Your task to perform on an android device: set the stopwatch Image 0: 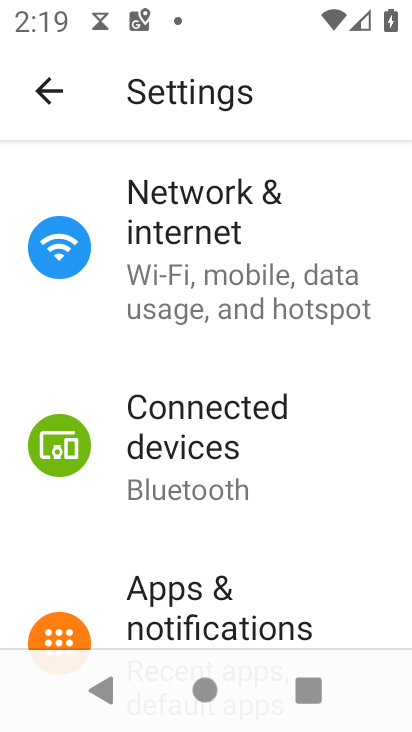
Step 0: press home button
Your task to perform on an android device: set the stopwatch Image 1: 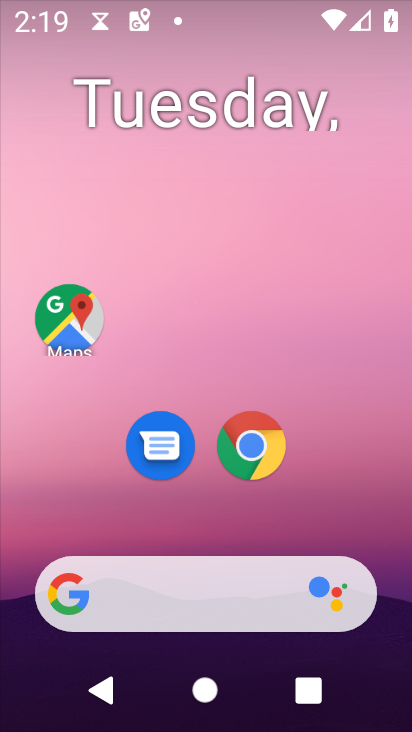
Step 1: drag from (348, 628) to (407, 53)
Your task to perform on an android device: set the stopwatch Image 2: 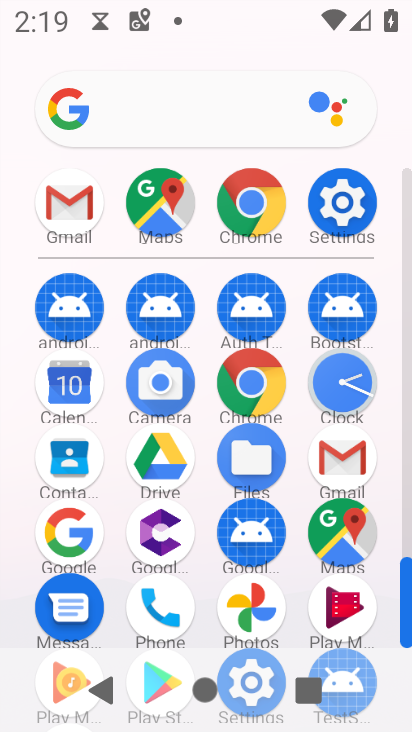
Step 2: click (353, 392)
Your task to perform on an android device: set the stopwatch Image 3: 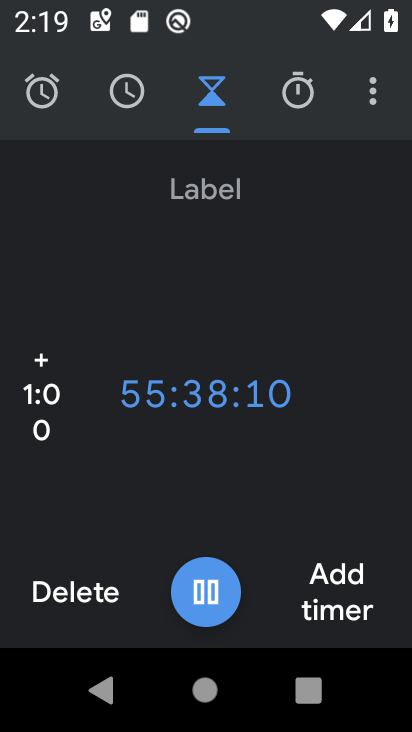
Step 3: click (298, 114)
Your task to perform on an android device: set the stopwatch Image 4: 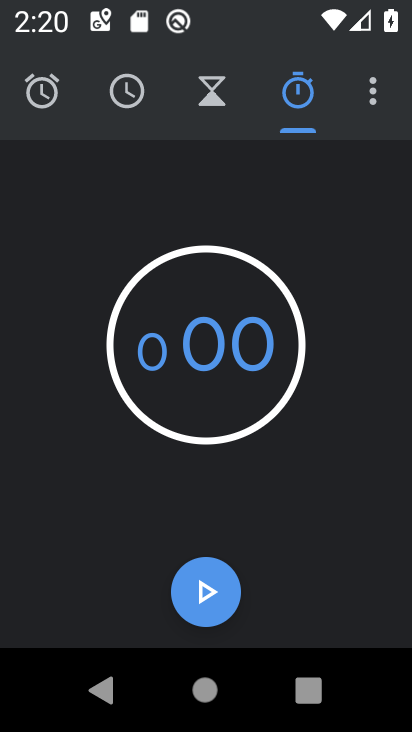
Step 4: click (207, 569)
Your task to perform on an android device: set the stopwatch Image 5: 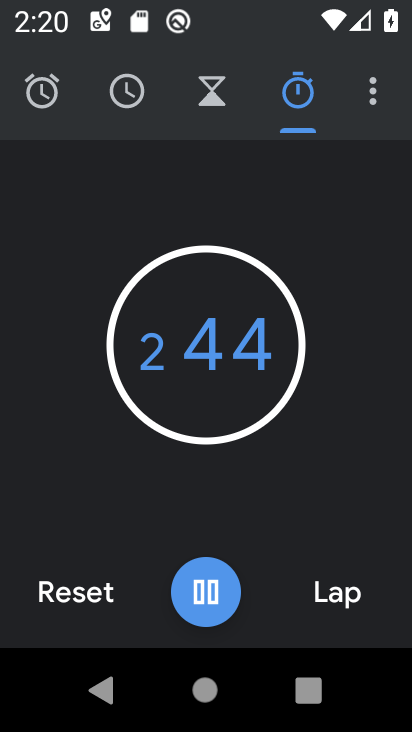
Step 5: task complete